Your task to perform on an android device: Go to eBay Image 0: 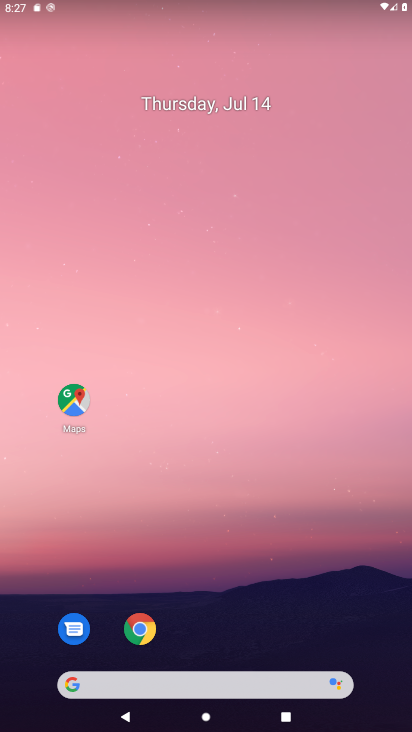
Step 0: click (140, 622)
Your task to perform on an android device: Go to eBay Image 1: 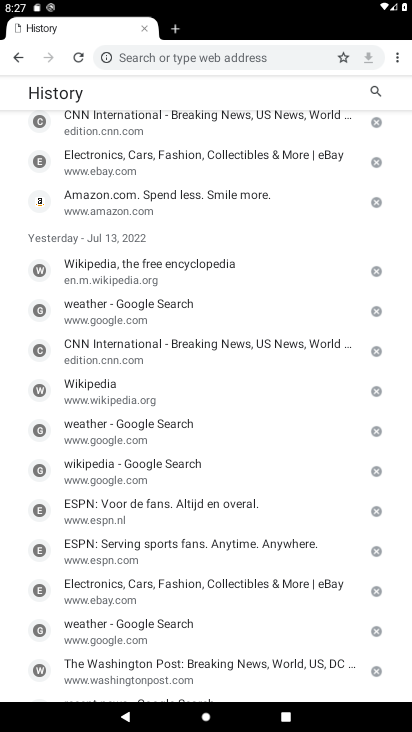
Step 1: click (176, 54)
Your task to perform on an android device: Go to eBay Image 2: 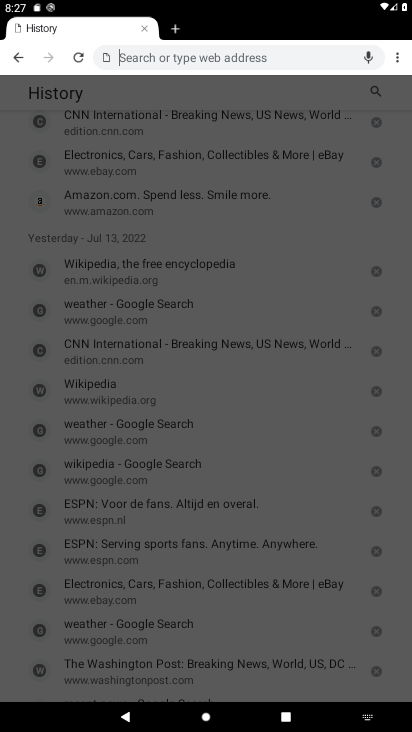
Step 2: type "eBay"
Your task to perform on an android device: Go to eBay Image 3: 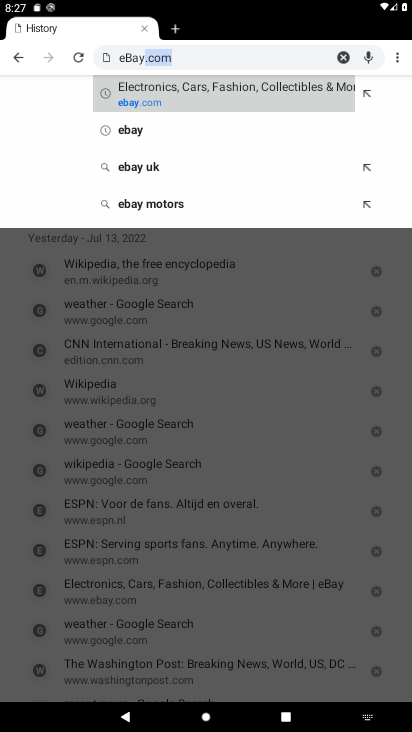
Step 3: click (166, 98)
Your task to perform on an android device: Go to eBay Image 4: 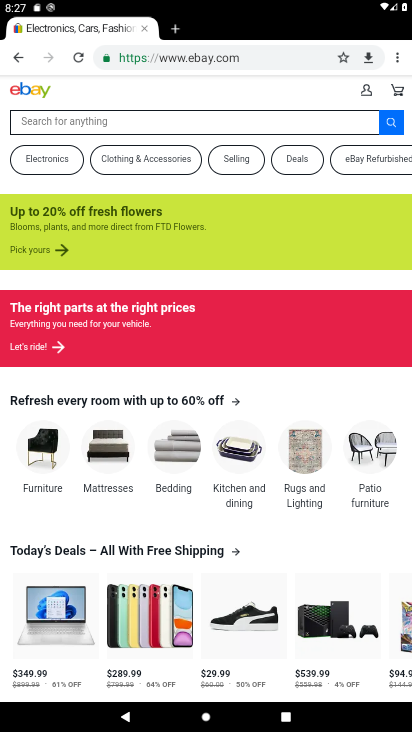
Step 4: task complete